Your task to perform on an android device: Open the calendar app, open the side menu, and click the "Day" option Image 0: 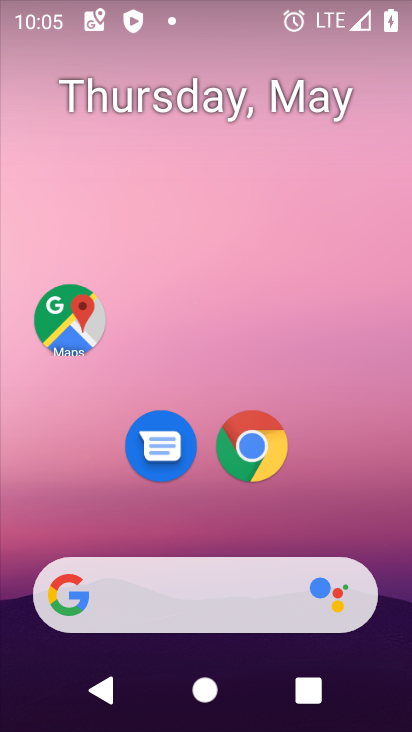
Step 0: drag from (400, 597) to (303, 81)
Your task to perform on an android device: Open the calendar app, open the side menu, and click the "Day" option Image 1: 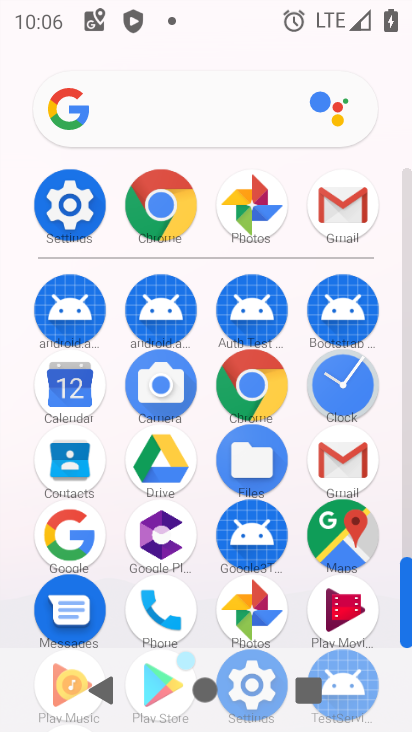
Step 1: click (64, 376)
Your task to perform on an android device: Open the calendar app, open the side menu, and click the "Day" option Image 2: 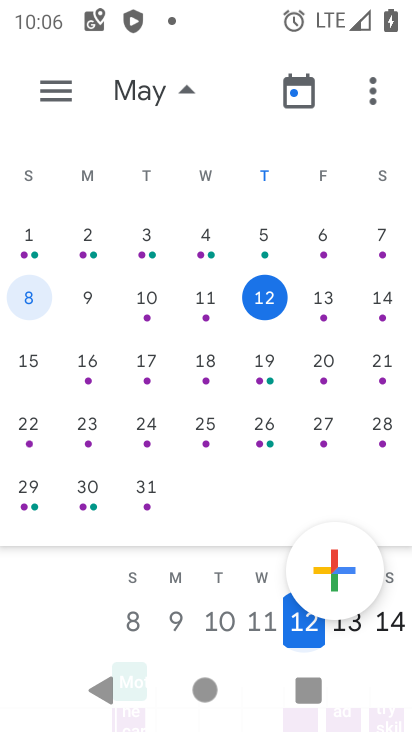
Step 2: click (60, 92)
Your task to perform on an android device: Open the calendar app, open the side menu, and click the "Day" option Image 3: 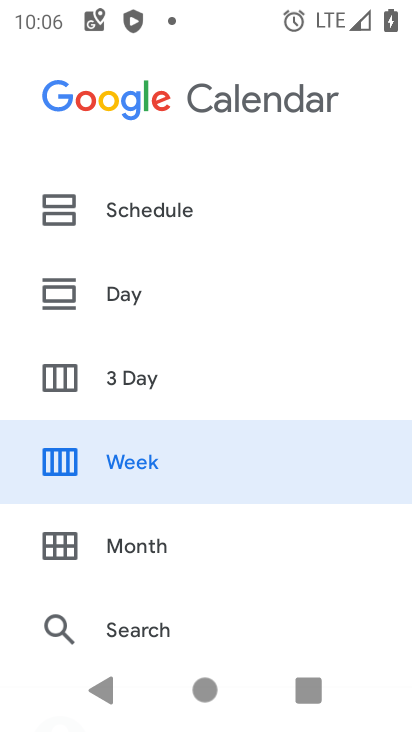
Step 3: click (123, 293)
Your task to perform on an android device: Open the calendar app, open the side menu, and click the "Day" option Image 4: 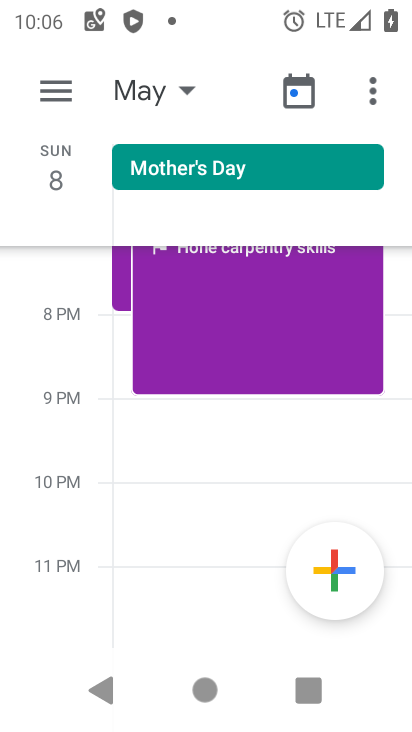
Step 4: task complete